Your task to perform on an android device: Search for good Italian restaurants on Maps Image 0: 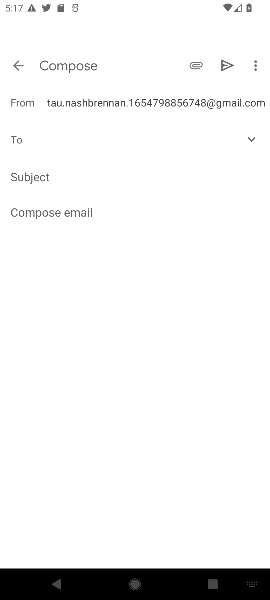
Step 0: click (137, 584)
Your task to perform on an android device: Search for good Italian restaurants on Maps Image 1: 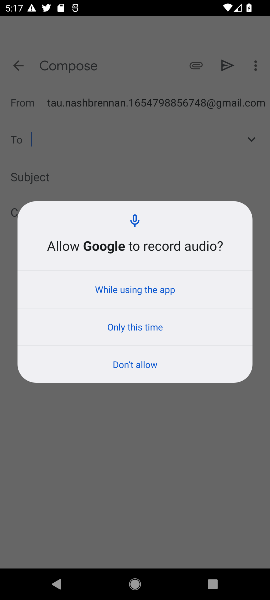
Step 1: click (138, 584)
Your task to perform on an android device: Search for good Italian restaurants on Maps Image 2: 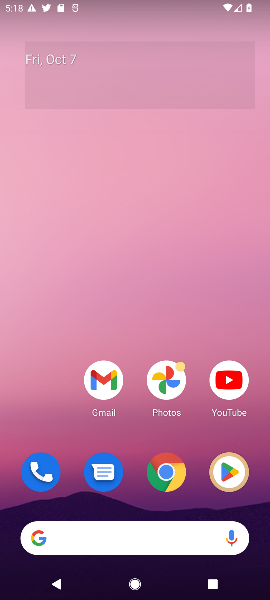
Step 2: click (217, 121)
Your task to perform on an android device: Search for good Italian restaurants on Maps Image 3: 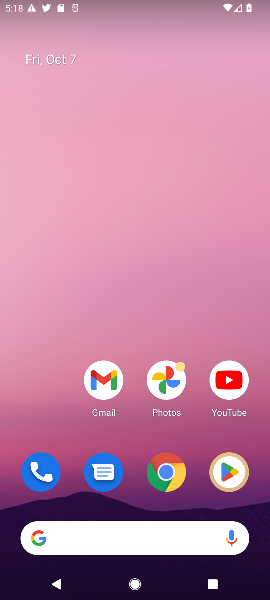
Step 3: click (161, 70)
Your task to perform on an android device: Search for good Italian restaurants on Maps Image 4: 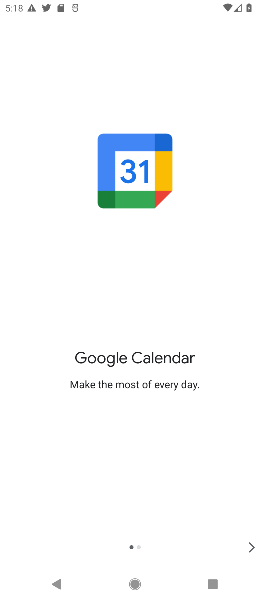
Step 4: press home button
Your task to perform on an android device: Search for good Italian restaurants on Maps Image 5: 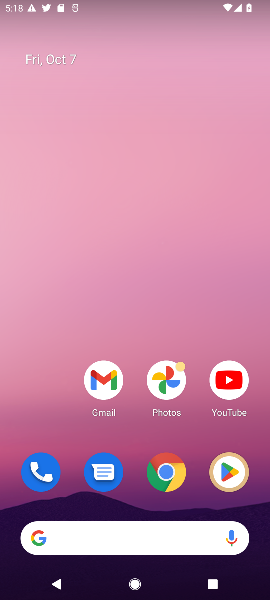
Step 5: drag from (248, 435) to (209, 51)
Your task to perform on an android device: Search for good Italian restaurants on Maps Image 6: 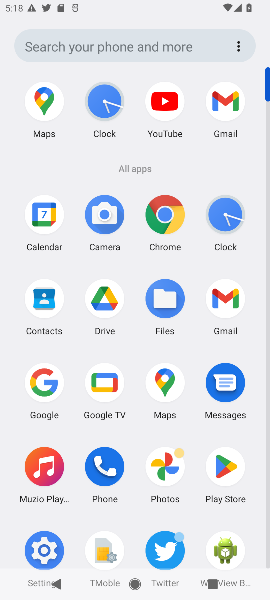
Step 6: click (167, 378)
Your task to perform on an android device: Search for good Italian restaurants on Maps Image 7: 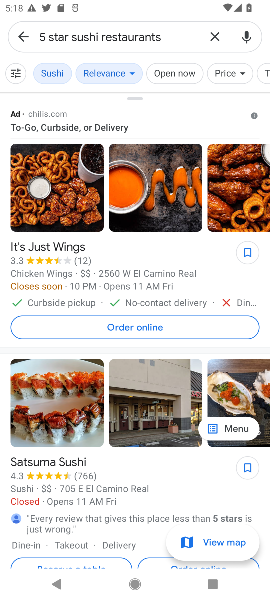
Step 7: click (210, 38)
Your task to perform on an android device: Search for good Italian restaurants on Maps Image 8: 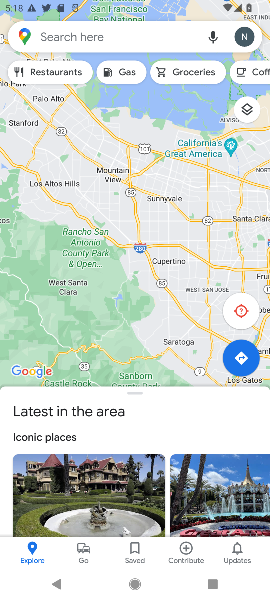
Step 8: click (147, 40)
Your task to perform on an android device: Search for good Italian restaurants on Maps Image 9: 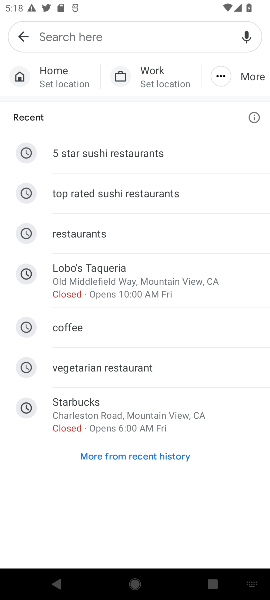
Step 9: type "good Italian restaurants"
Your task to perform on an android device: Search for good Italian restaurants on Maps Image 10: 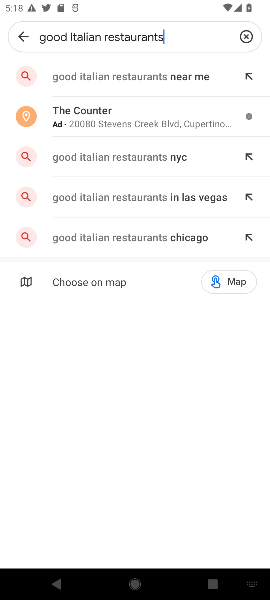
Step 10: press enter
Your task to perform on an android device: Search for good Italian restaurants on Maps Image 11: 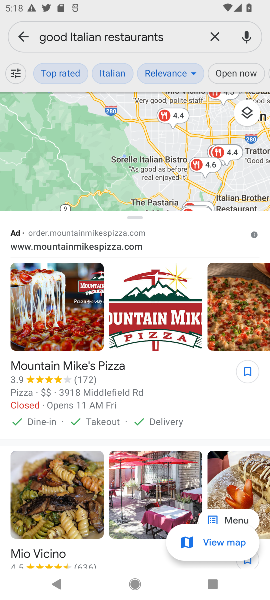
Step 11: task complete